Your task to perform on an android device: see sites visited before in the chrome app Image 0: 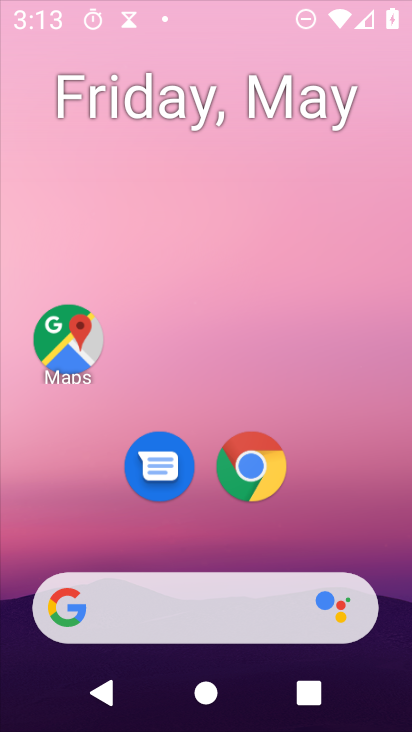
Step 0: click (409, 79)
Your task to perform on an android device: see sites visited before in the chrome app Image 1: 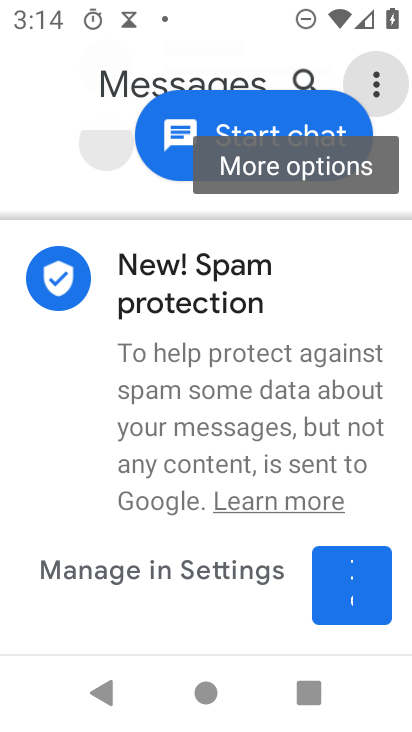
Step 1: press home button
Your task to perform on an android device: see sites visited before in the chrome app Image 2: 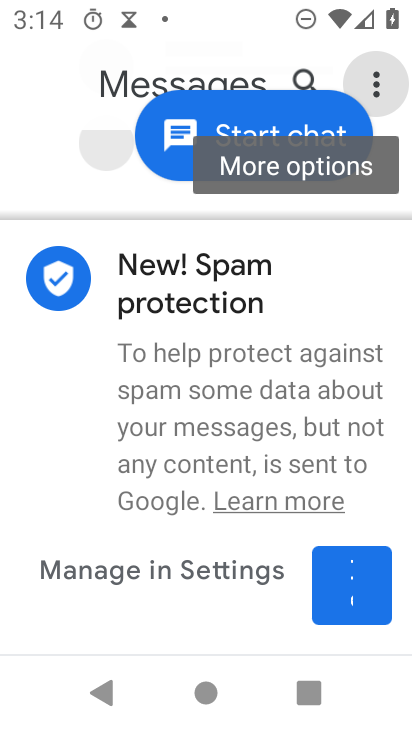
Step 2: drag from (409, 79) to (244, 3)
Your task to perform on an android device: see sites visited before in the chrome app Image 3: 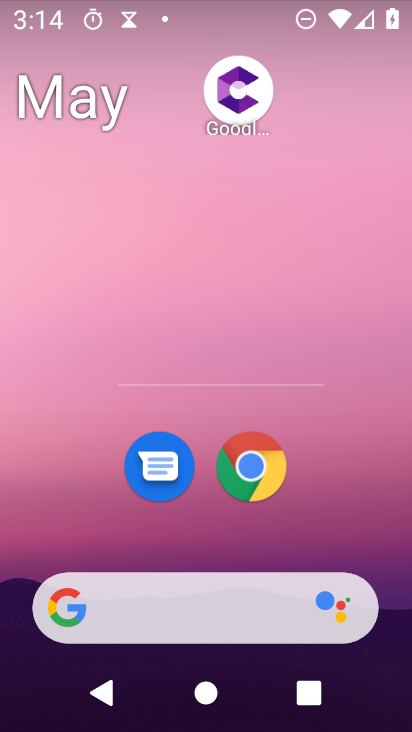
Step 3: drag from (359, 565) to (359, 28)
Your task to perform on an android device: see sites visited before in the chrome app Image 4: 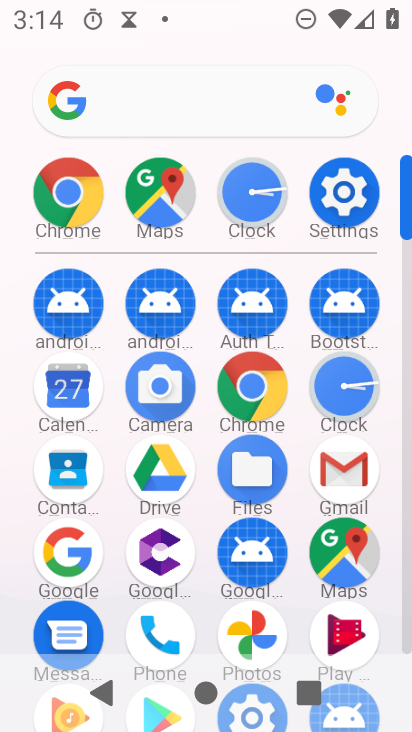
Step 4: click (38, 195)
Your task to perform on an android device: see sites visited before in the chrome app Image 5: 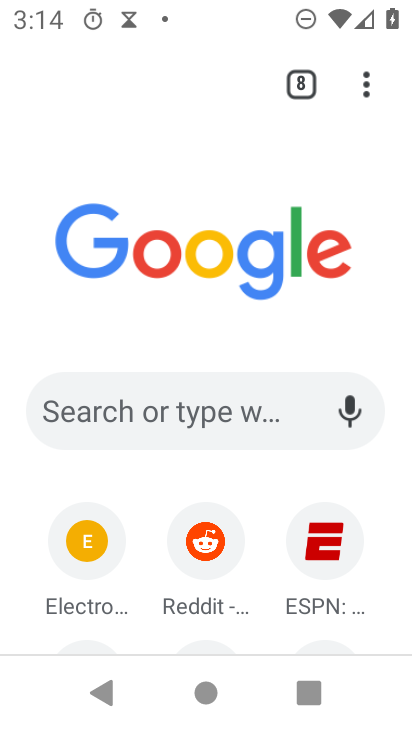
Step 5: drag from (358, 82) to (143, 391)
Your task to perform on an android device: see sites visited before in the chrome app Image 6: 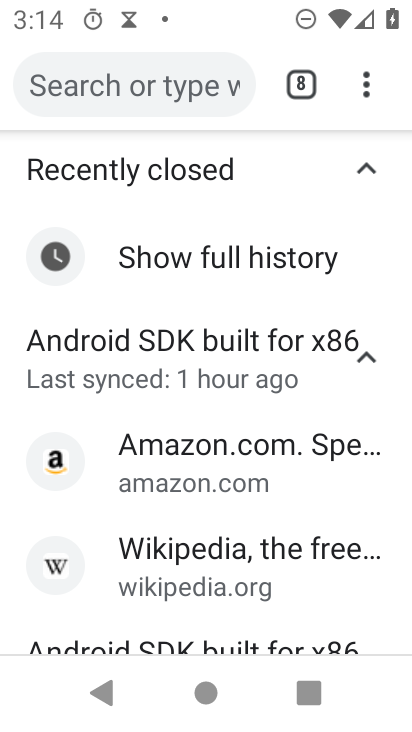
Step 6: drag from (243, 582) to (298, 162)
Your task to perform on an android device: see sites visited before in the chrome app Image 7: 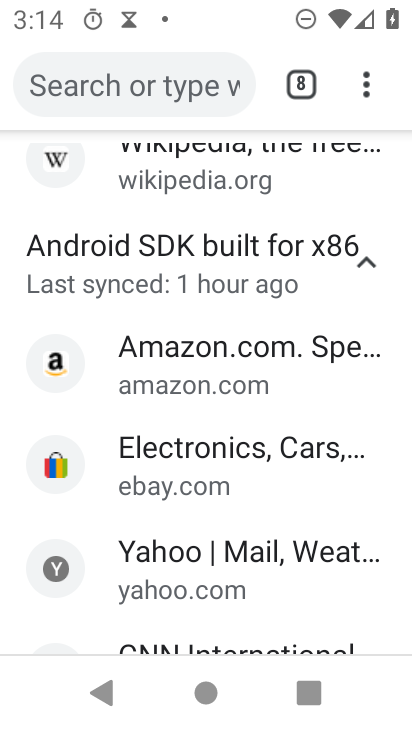
Step 7: click (254, 171)
Your task to perform on an android device: see sites visited before in the chrome app Image 8: 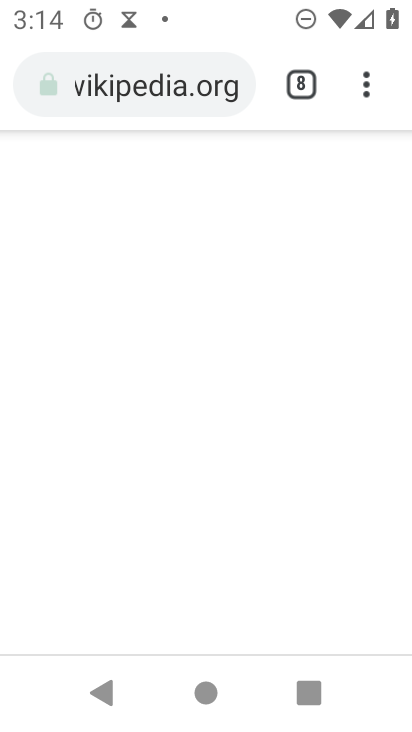
Step 8: task complete